Your task to perform on an android device: find which apps use the phone's location Image 0: 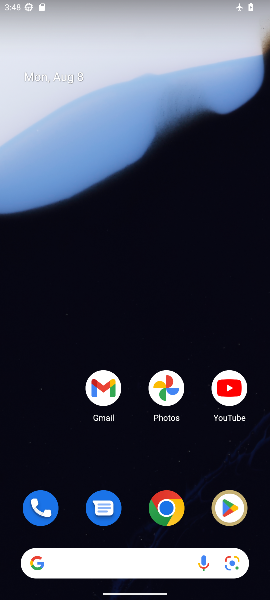
Step 0: drag from (145, 465) to (134, 116)
Your task to perform on an android device: find which apps use the phone's location Image 1: 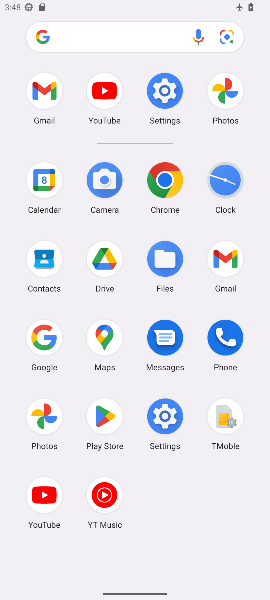
Step 1: click (166, 87)
Your task to perform on an android device: find which apps use the phone's location Image 2: 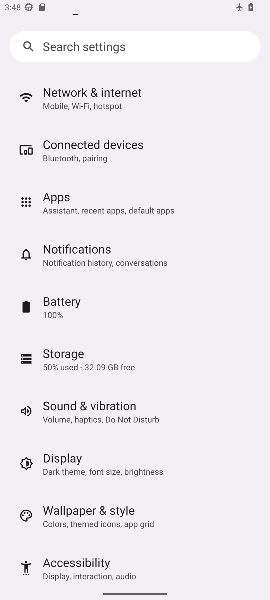
Step 2: drag from (186, 446) to (186, 184)
Your task to perform on an android device: find which apps use the phone's location Image 3: 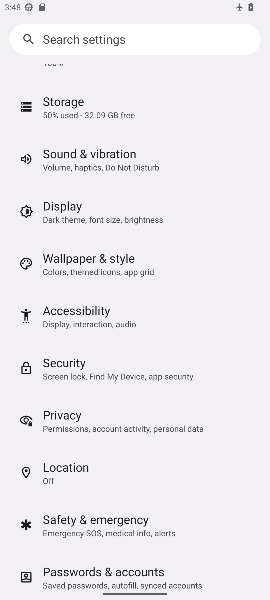
Step 3: click (71, 469)
Your task to perform on an android device: find which apps use the phone's location Image 4: 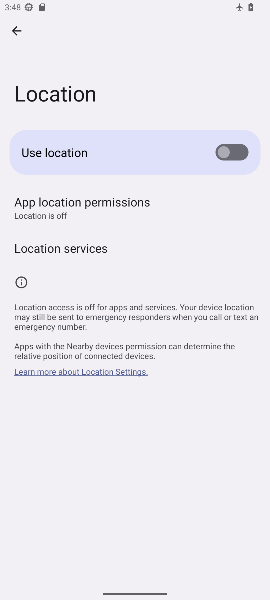
Step 4: task complete